Your task to perform on an android device: Go to eBay Image 0: 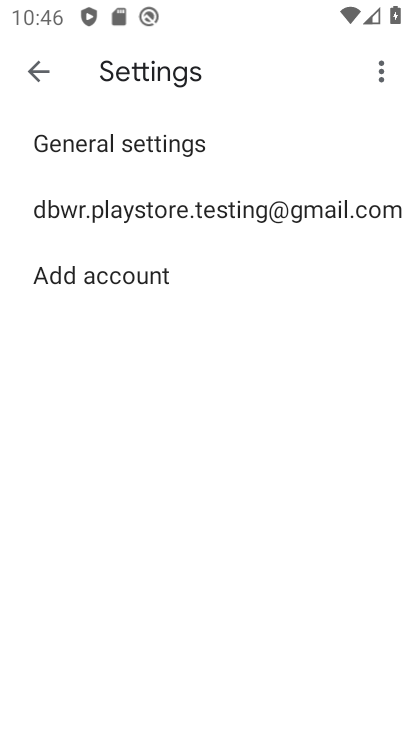
Step 0: press home button
Your task to perform on an android device: Go to eBay Image 1: 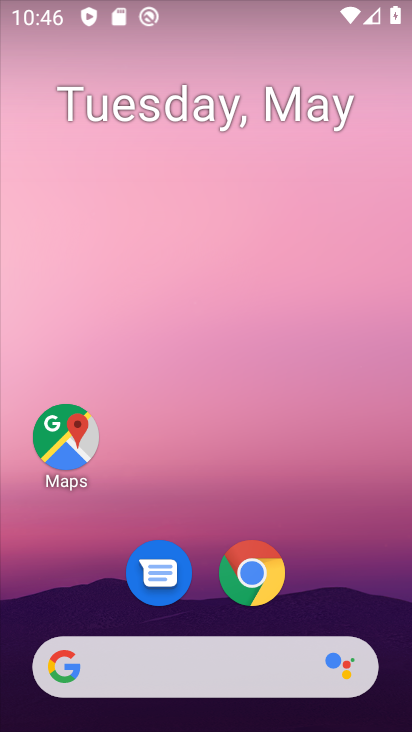
Step 1: click (263, 581)
Your task to perform on an android device: Go to eBay Image 2: 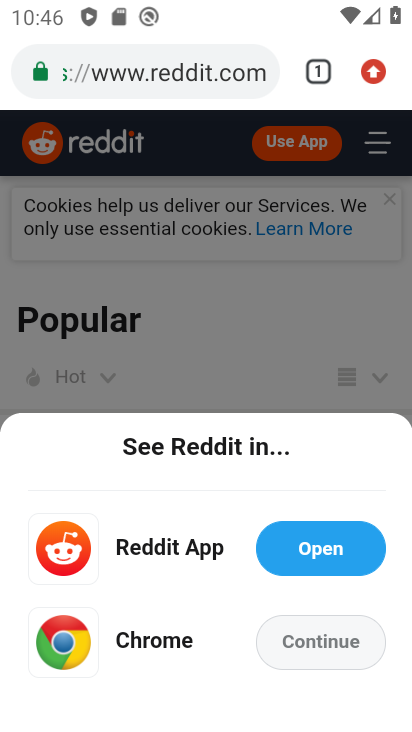
Step 2: press back button
Your task to perform on an android device: Go to eBay Image 3: 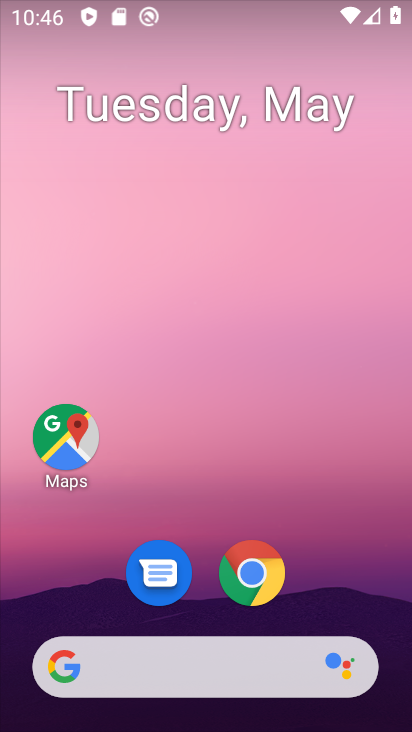
Step 3: click (267, 570)
Your task to perform on an android device: Go to eBay Image 4: 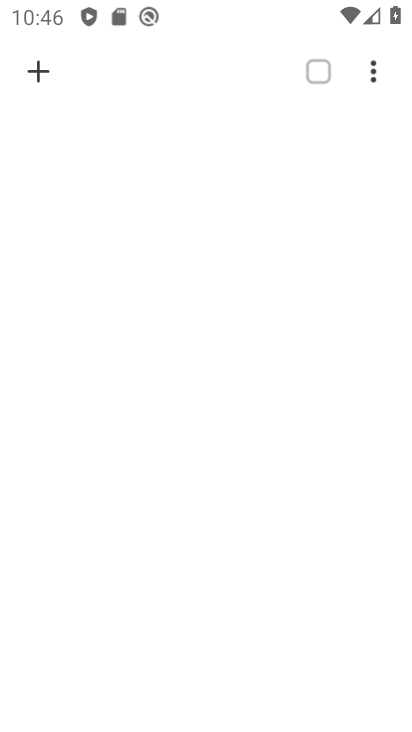
Step 4: click (39, 72)
Your task to perform on an android device: Go to eBay Image 5: 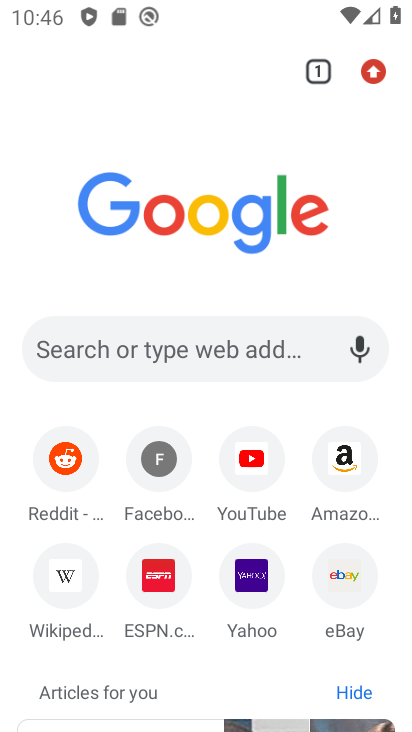
Step 5: click (346, 580)
Your task to perform on an android device: Go to eBay Image 6: 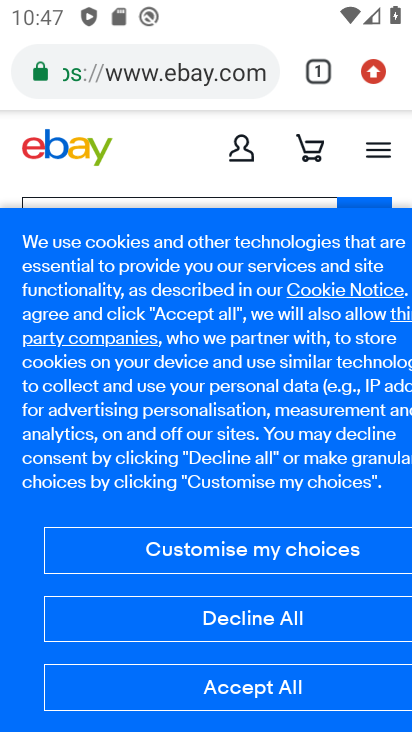
Step 6: task complete